Your task to perform on an android device: show emergency info Image 0: 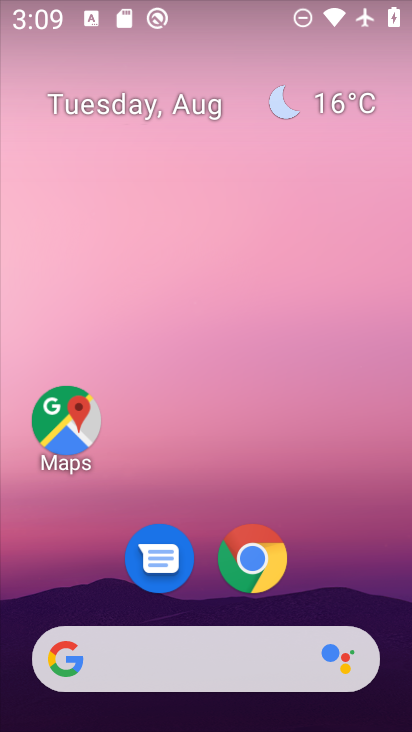
Step 0: drag from (200, 508) to (191, 104)
Your task to perform on an android device: show emergency info Image 1: 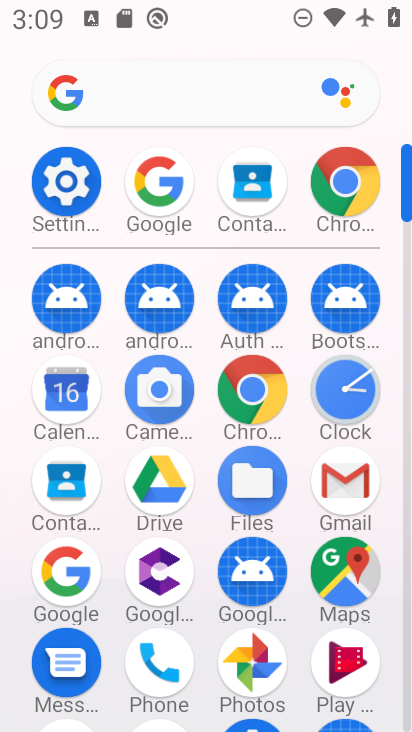
Step 1: click (59, 196)
Your task to perform on an android device: show emergency info Image 2: 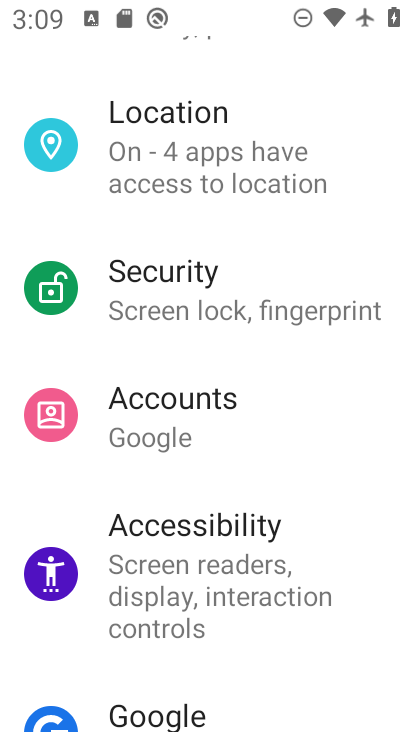
Step 2: drag from (230, 653) to (201, 162)
Your task to perform on an android device: show emergency info Image 3: 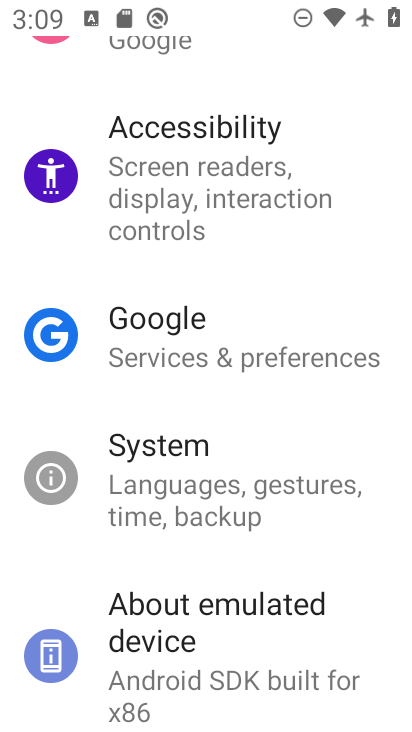
Step 3: click (266, 193)
Your task to perform on an android device: show emergency info Image 4: 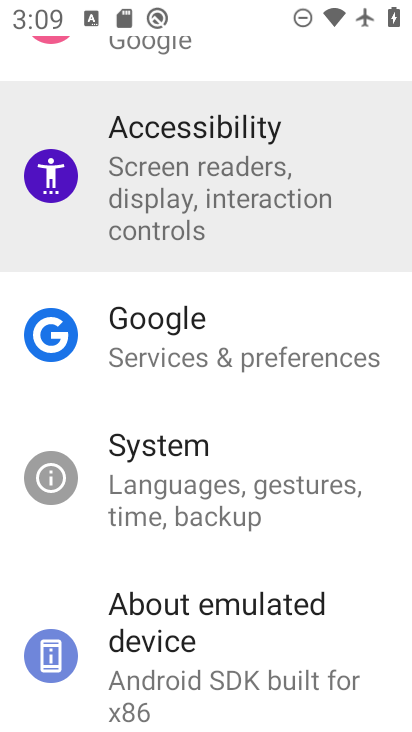
Step 4: drag from (256, 425) to (254, 131)
Your task to perform on an android device: show emergency info Image 5: 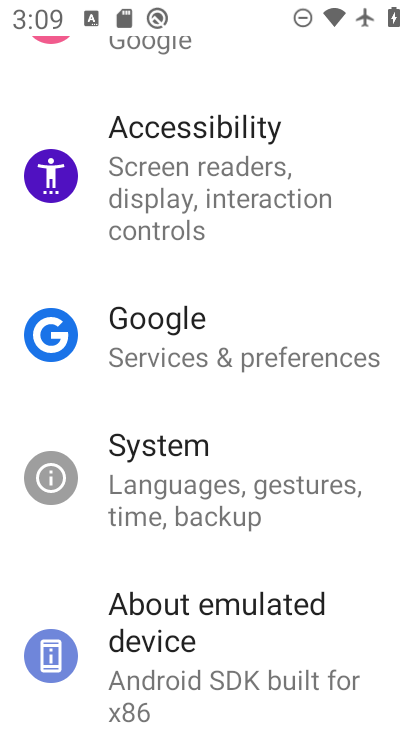
Step 5: click (187, 658)
Your task to perform on an android device: show emergency info Image 6: 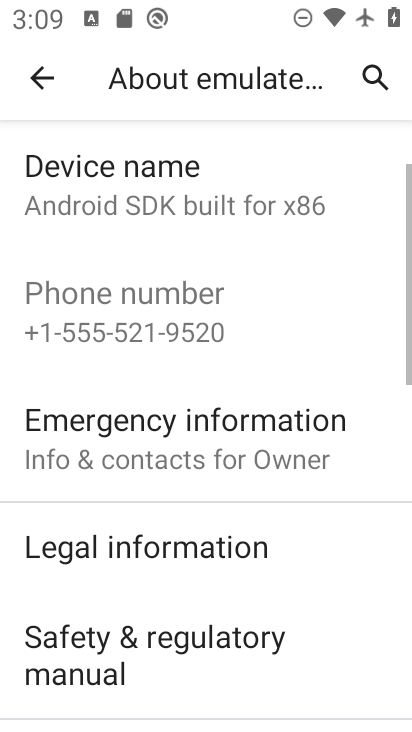
Step 6: click (158, 460)
Your task to perform on an android device: show emergency info Image 7: 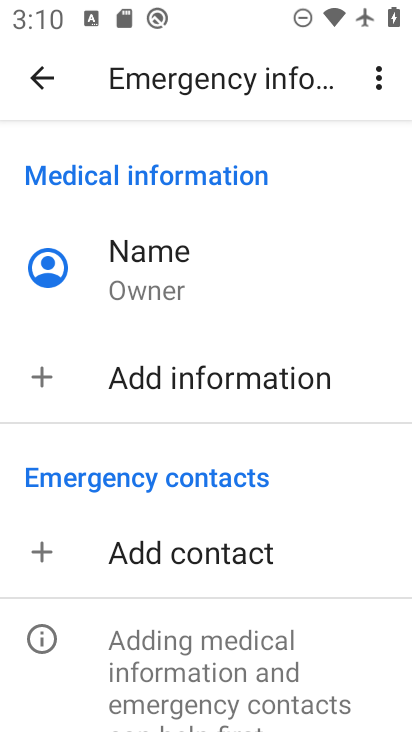
Step 7: task complete